Your task to perform on an android device: remove spam from my inbox in the gmail app Image 0: 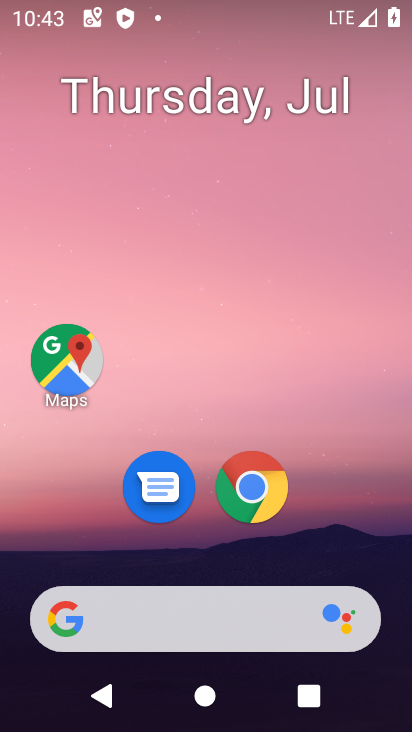
Step 0: drag from (181, 584) to (306, 42)
Your task to perform on an android device: remove spam from my inbox in the gmail app Image 1: 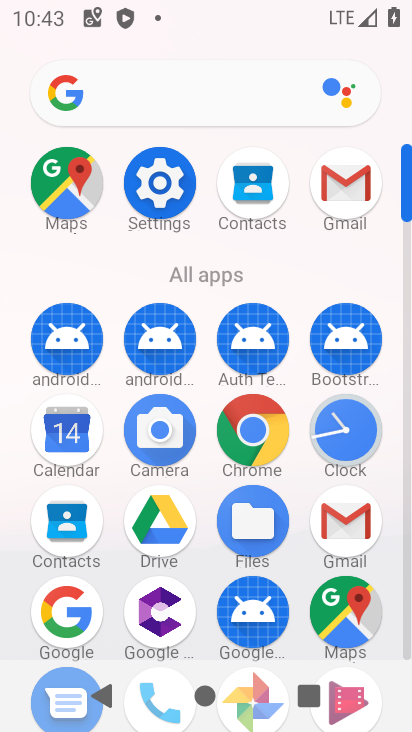
Step 1: click (353, 174)
Your task to perform on an android device: remove spam from my inbox in the gmail app Image 2: 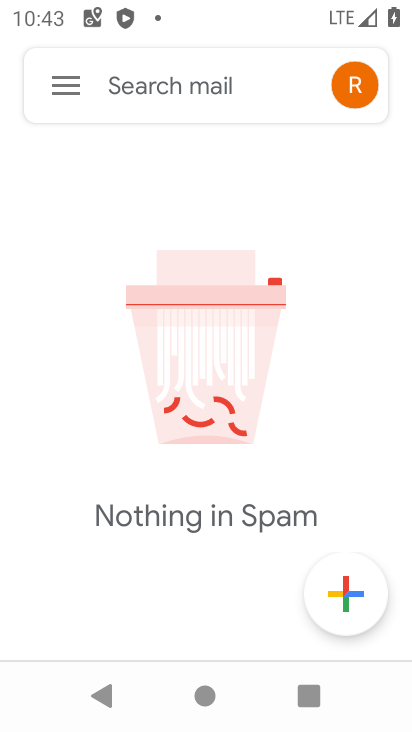
Step 2: task complete